Your task to perform on an android device: How much does the Vizio TV cost? Image 0: 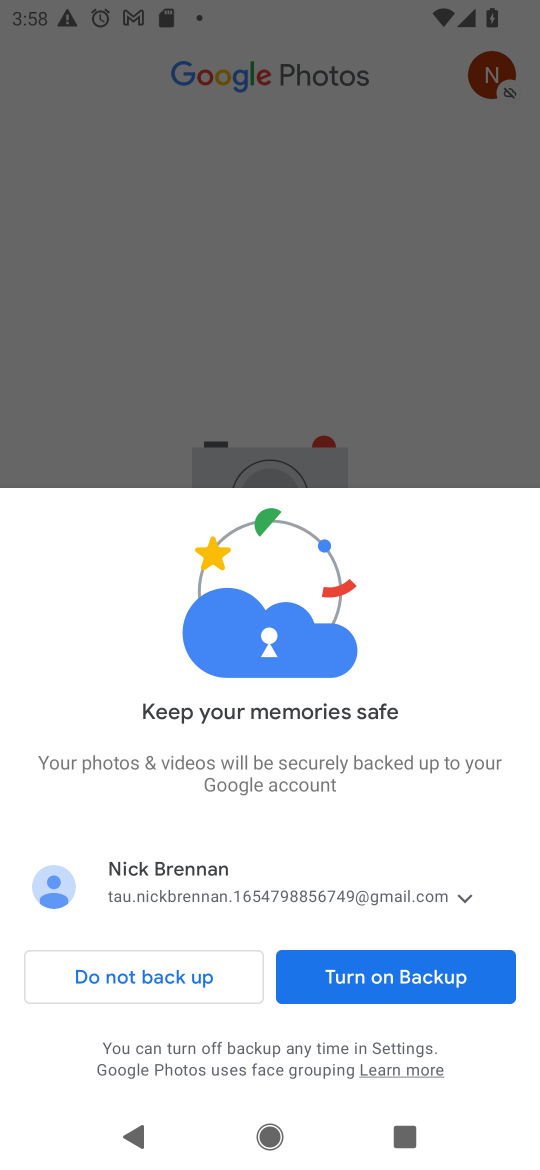
Step 0: press home button
Your task to perform on an android device: How much does the Vizio TV cost? Image 1: 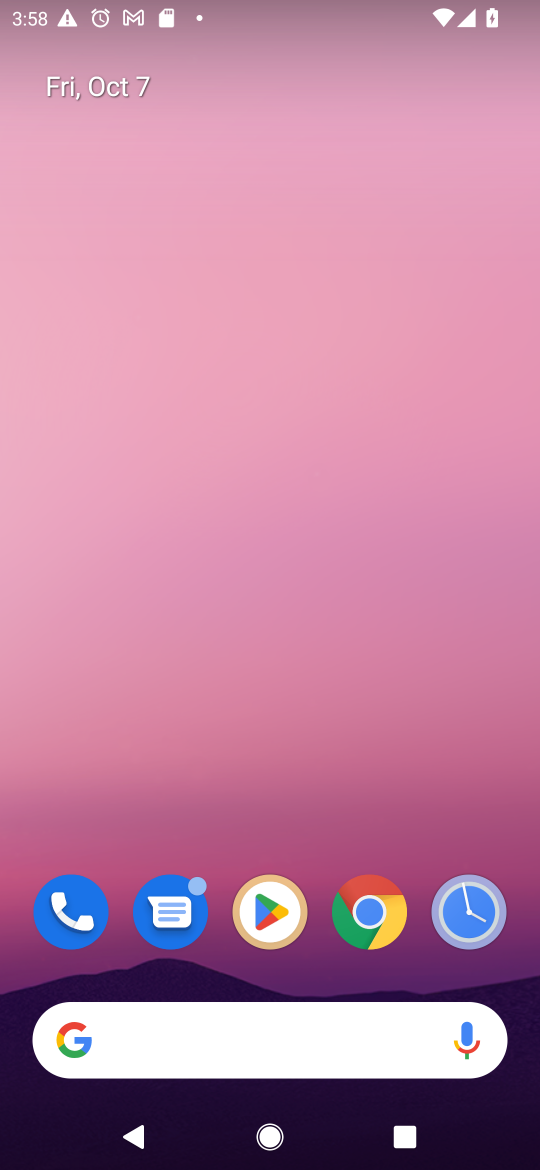
Step 1: drag from (301, 976) to (327, 343)
Your task to perform on an android device: How much does the Vizio TV cost? Image 2: 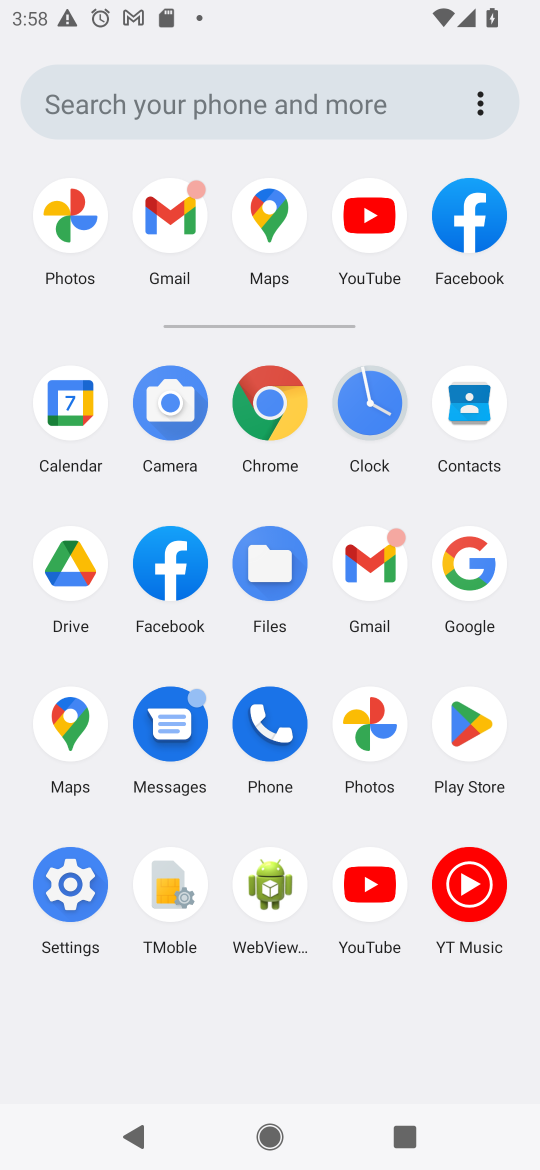
Step 2: click (455, 539)
Your task to perform on an android device: How much does the Vizio TV cost? Image 3: 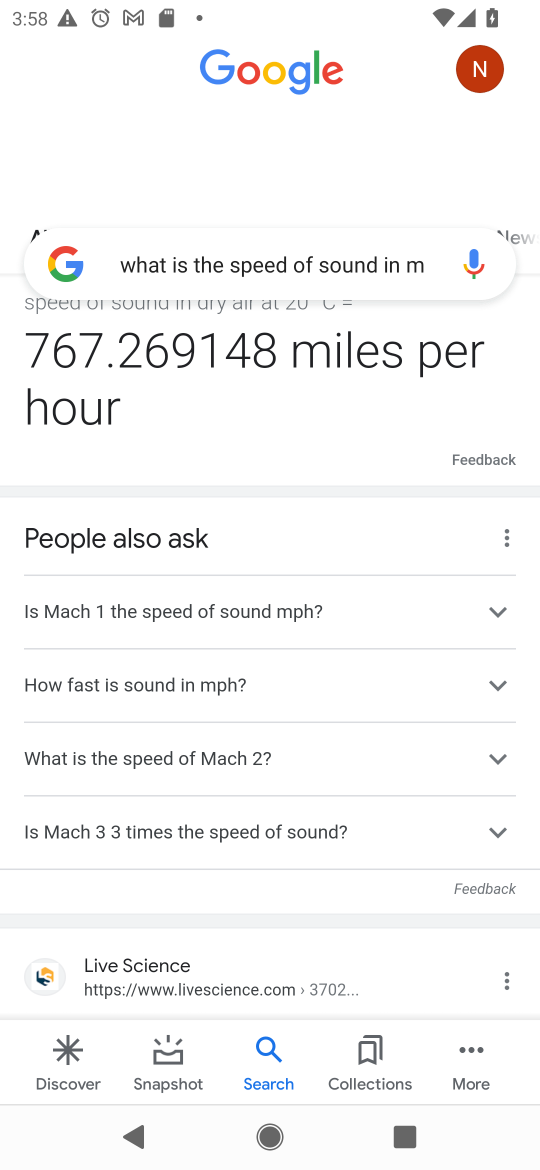
Step 3: click (364, 253)
Your task to perform on an android device: How much does the Vizio TV cost? Image 4: 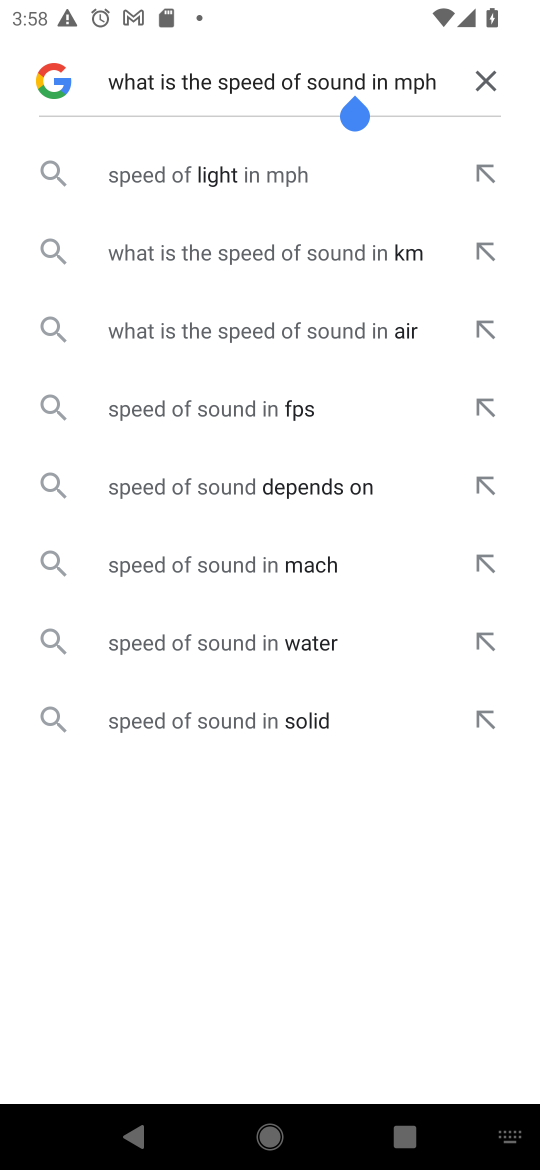
Step 4: click (474, 90)
Your task to perform on an android device: How much does the Vizio TV cost? Image 5: 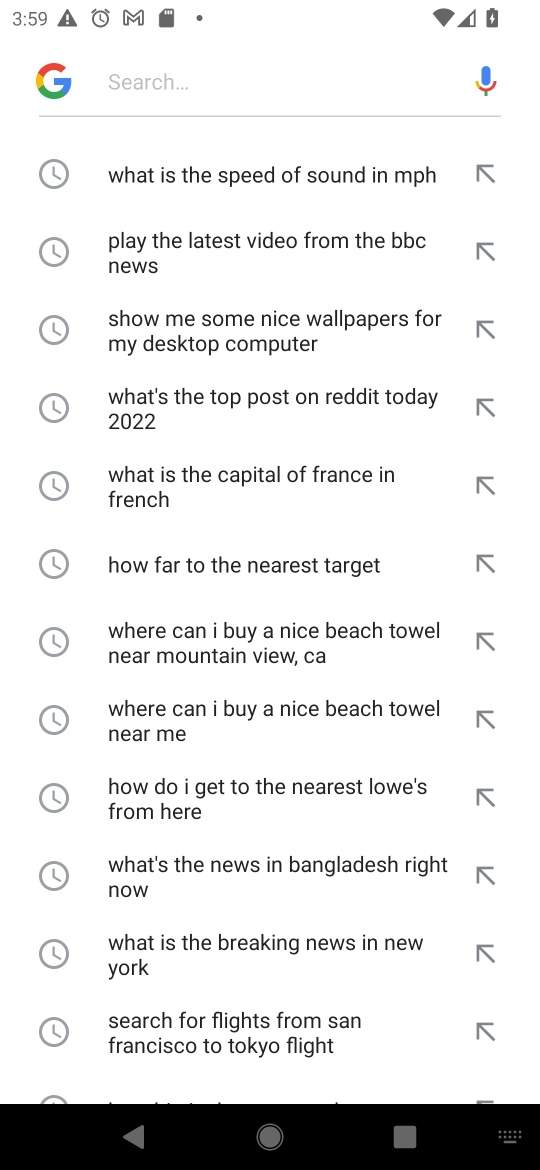
Step 5: click (224, 68)
Your task to perform on an android device: How much does the Vizio TV cost? Image 6: 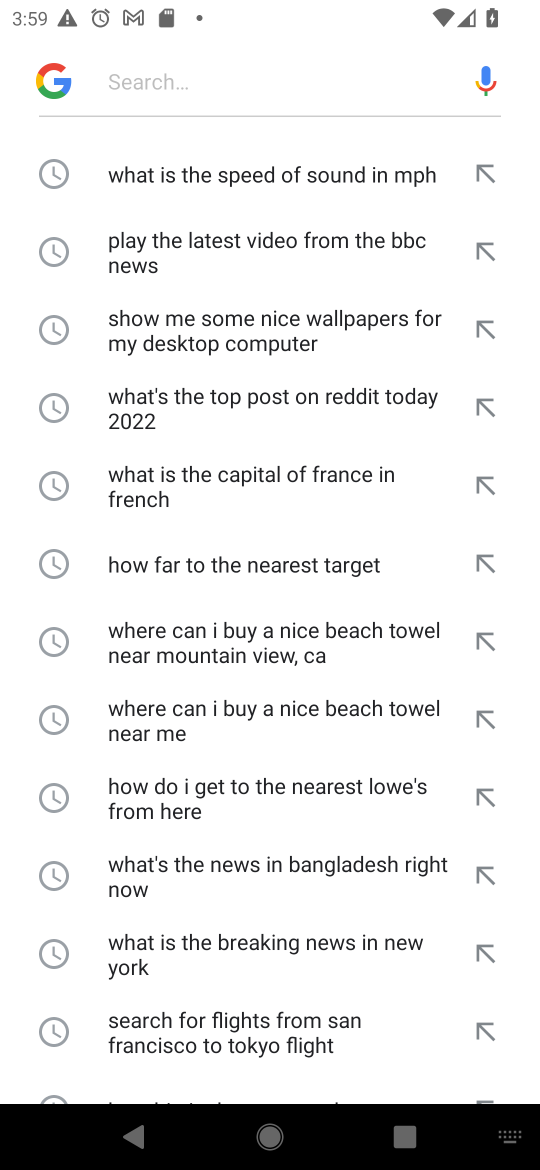
Step 6: type "How much does the Vizio TV cost? "
Your task to perform on an android device: How much does the Vizio TV cost? Image 7: 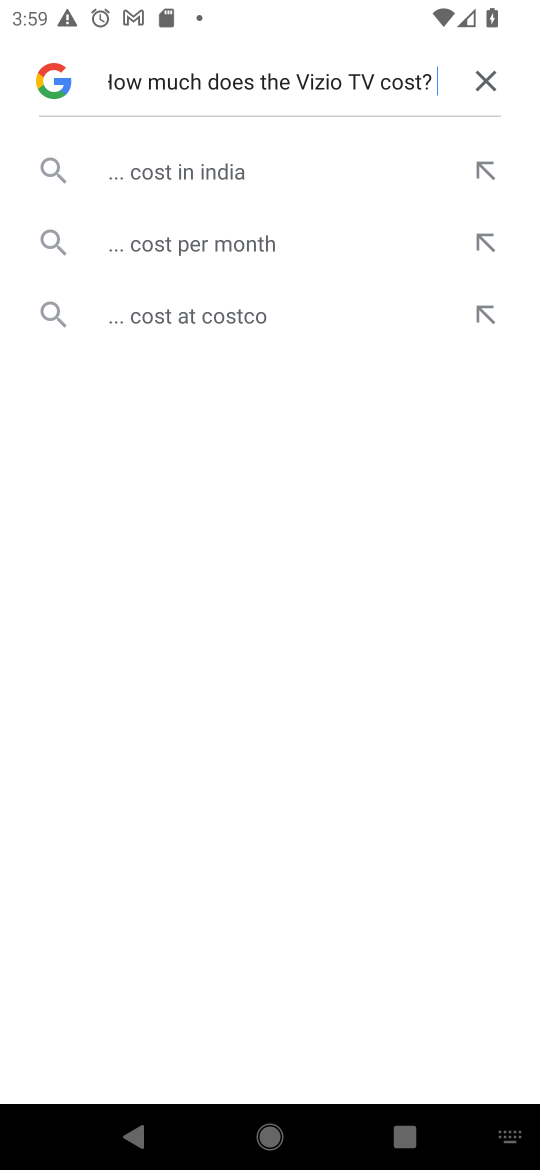
Step 7: click (213, 177)
Your task to perform on an android device: How much does the Vizio TV cost? Image 8: 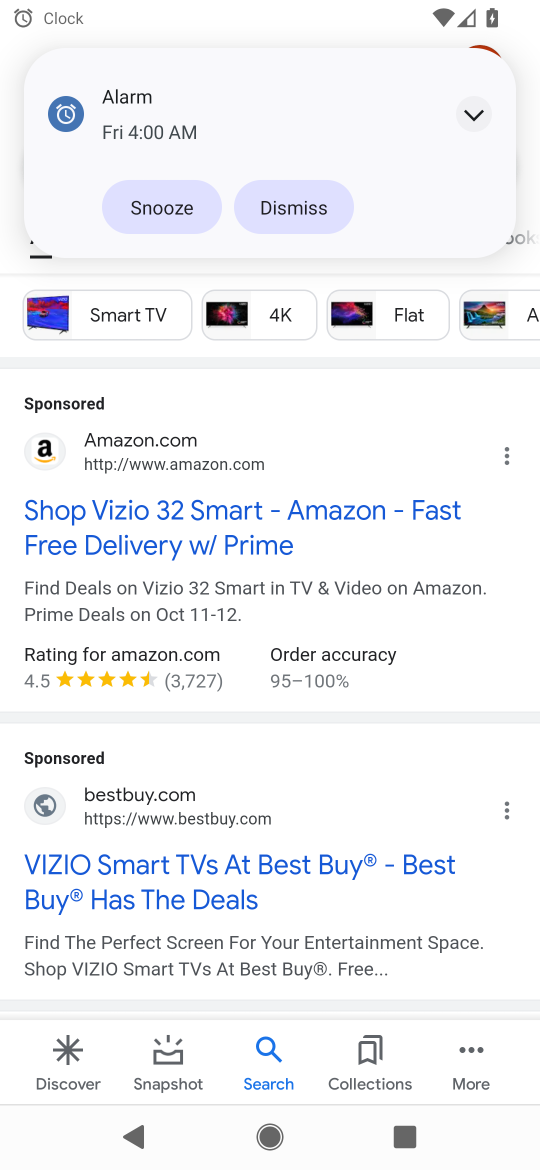
Step 8: click (170, 519)
Your task to perform on an android device: How much does the Vizio TV cost? Image 9: 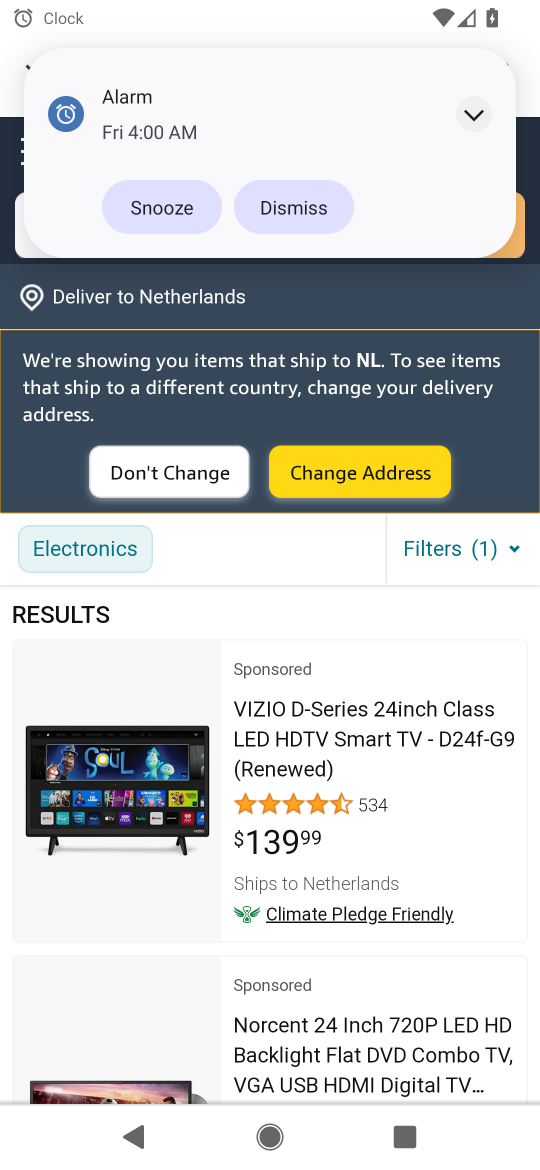
Step 9: click (318, 192)
Your task to perform on an android device: How much does the Vizio TV cost? Image 10: 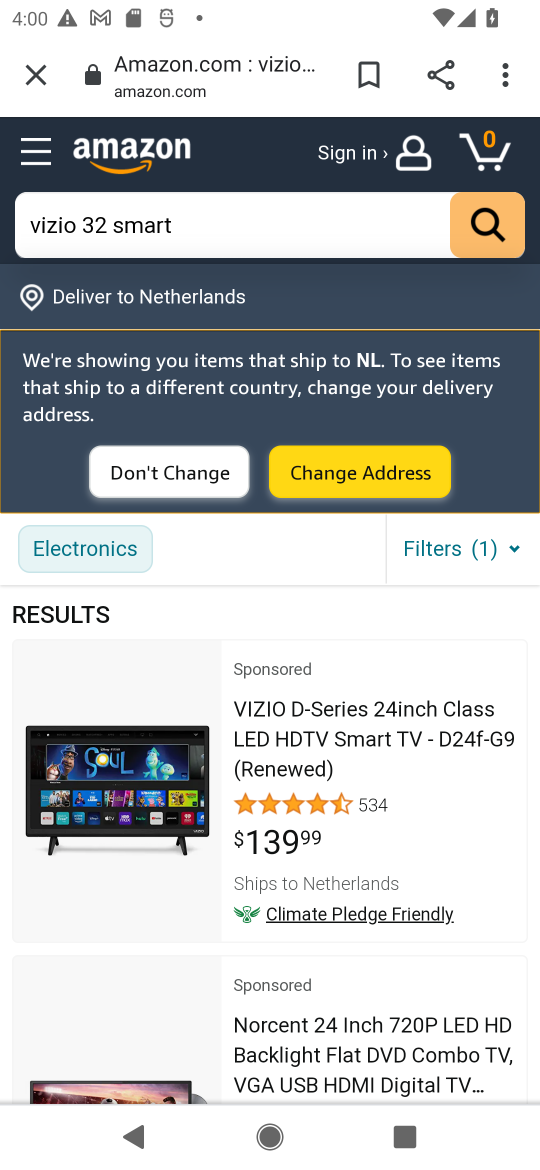
Step 10: task complete